Your task to perform on an android device: turn on javascript in the chrome app Image 0: 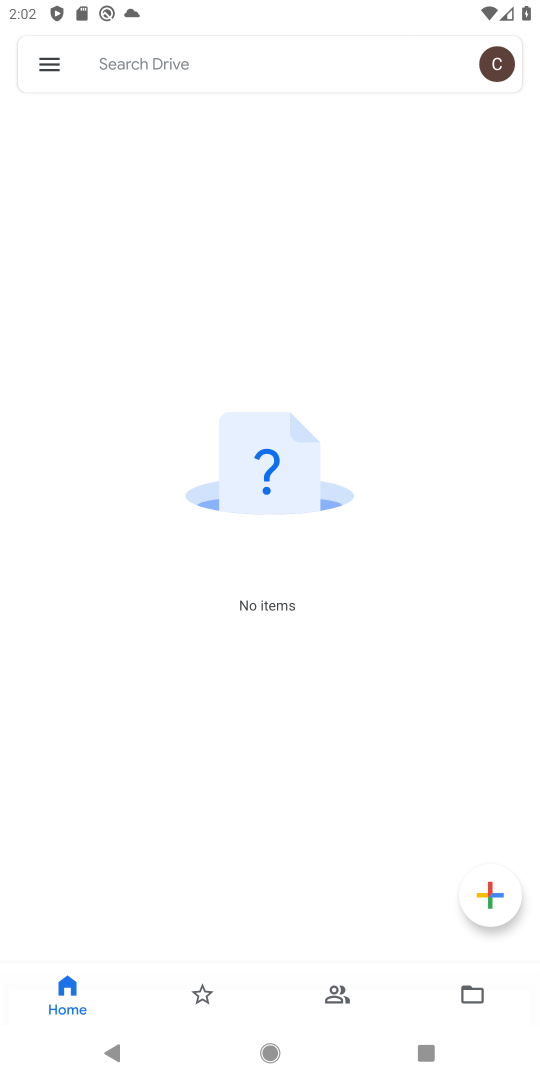
Step 0: press home button
Your task to perform on an android device: turn on javascript in the chrome app Image 1: 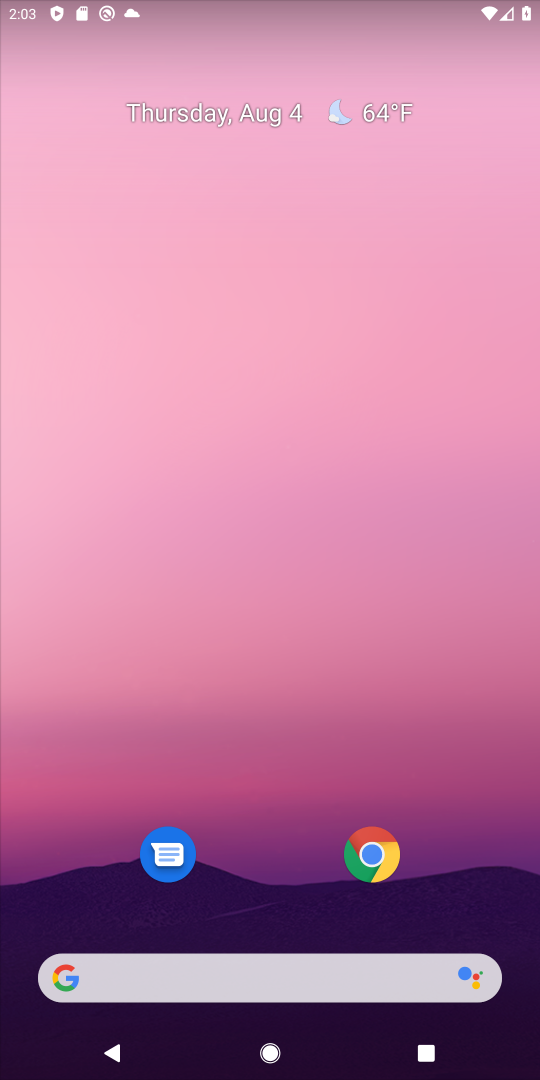
Step 1: click (373, 870)
Your task to perform on an android device: turn on javascript in the chrome app Image 2: 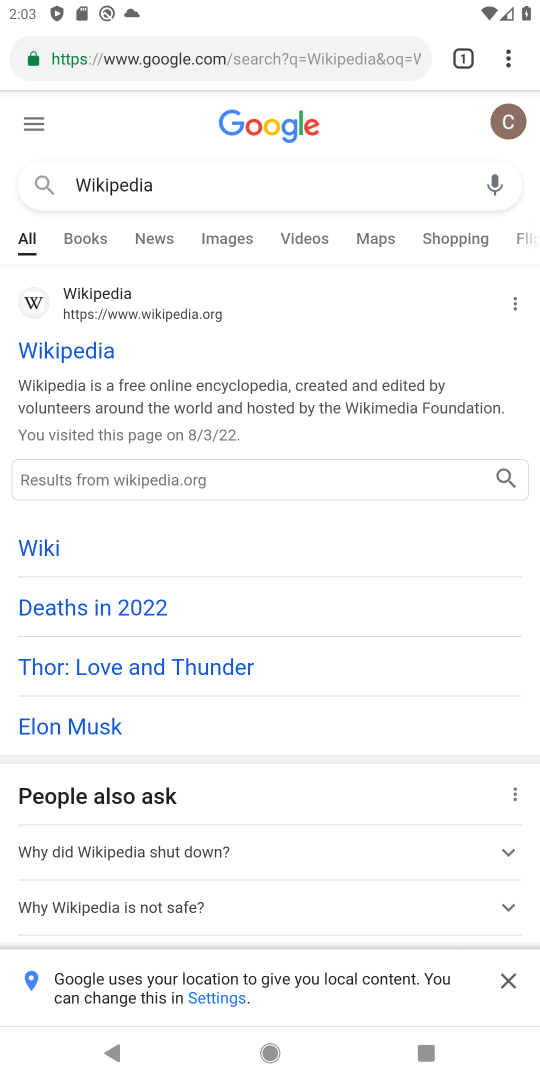
Step 2: task complete